Your task to perform on an android device: Open privacy settings Image 0: 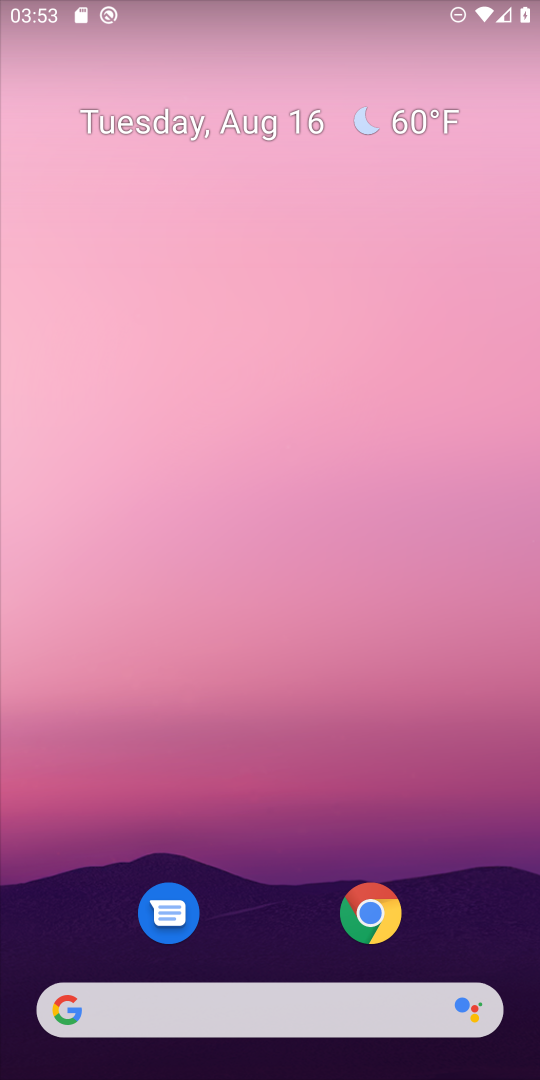
Step 0: drag from (456, 817) to (447, 226)
Your task to perform on an android device: Open privacy settings Image 1: 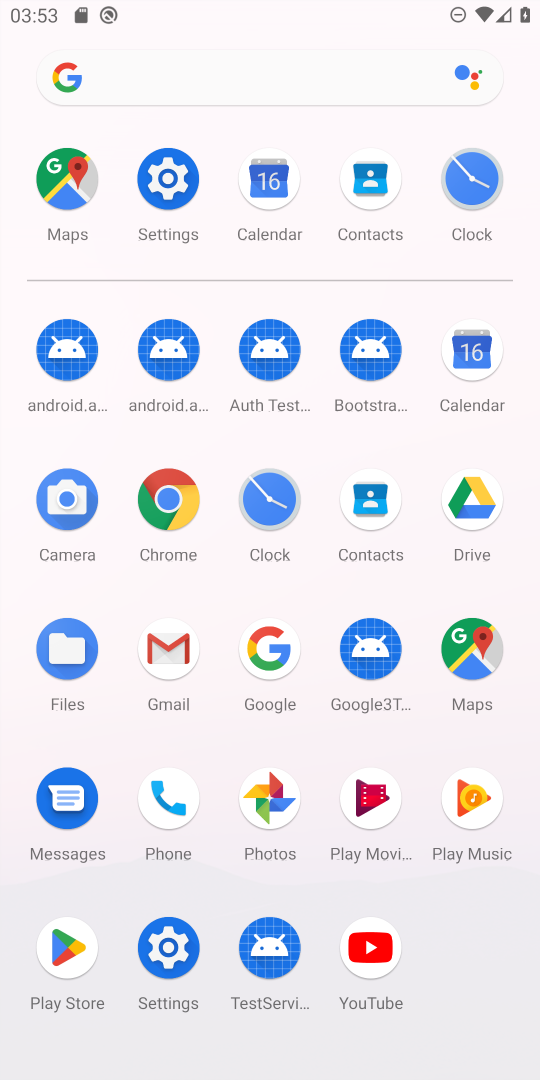
Step 1: click (168, 950)
Your task to perform on an android device: Open privacy settings Image 2: 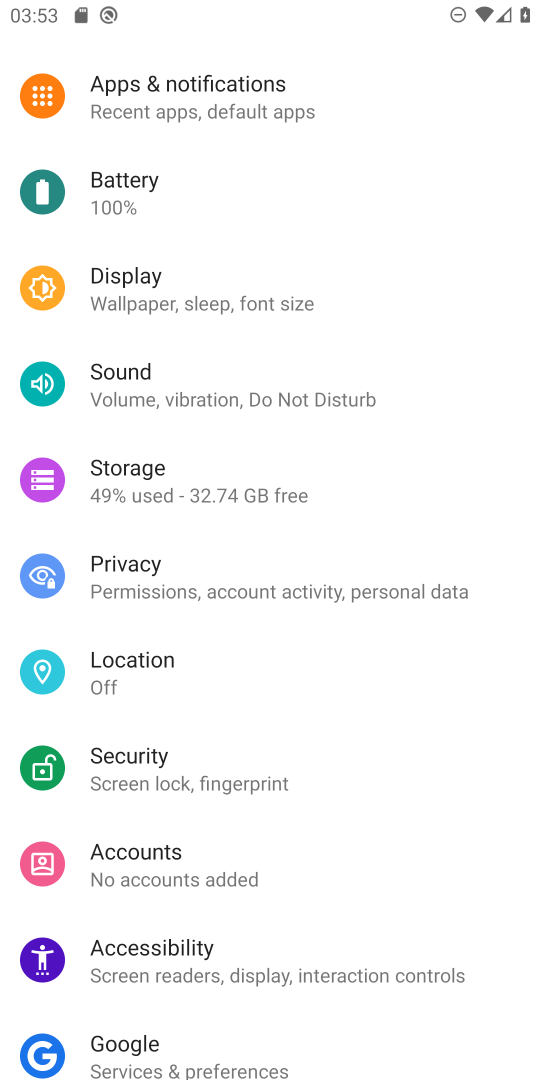
Step 2: click (130, 583)
Your task to perform on an android device: Open privacy settings Image 3: 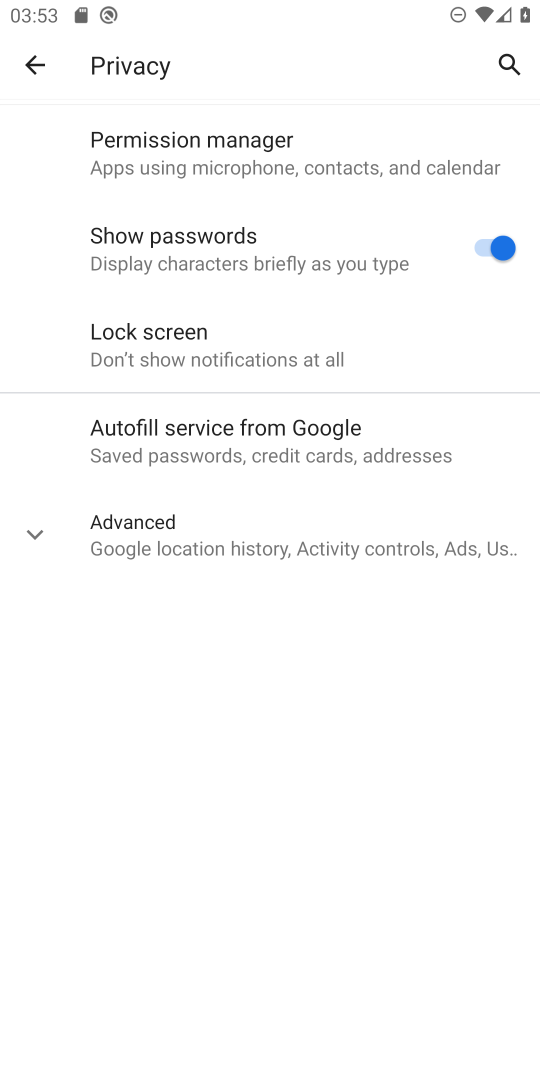
Step 3: click (33, 528)
Your task to perform on an android device: Open privacy settings Image 4: 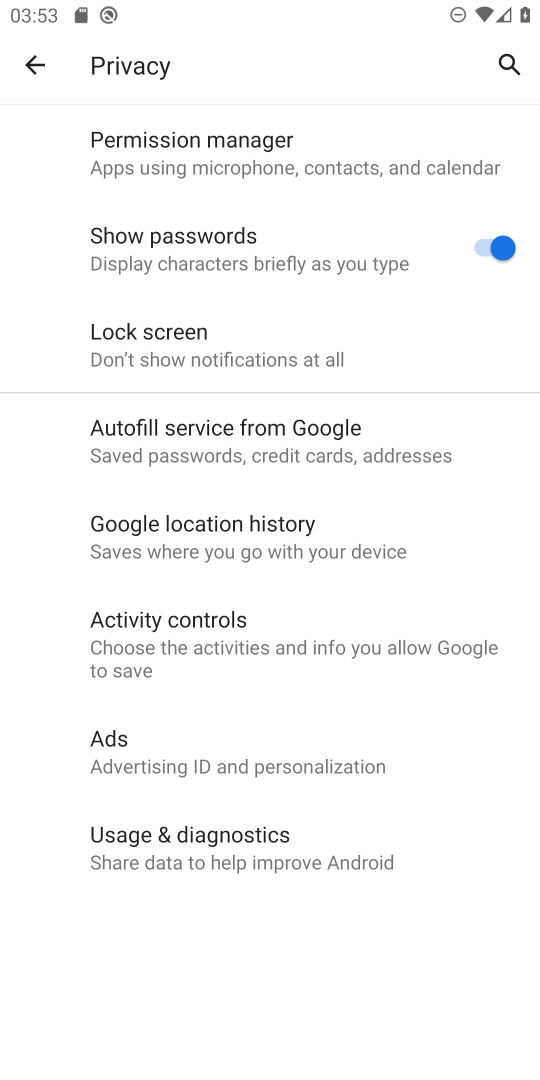
Step 4: task complete